Your task to perform on an android device: Go to ESPN.com Image 0: 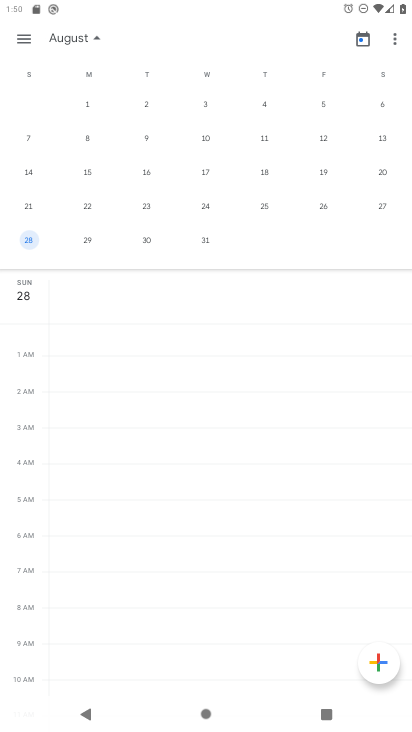
Step 0: click (355, 598)
Your task to perform on an android device: Go to ESPN.com Image 1: 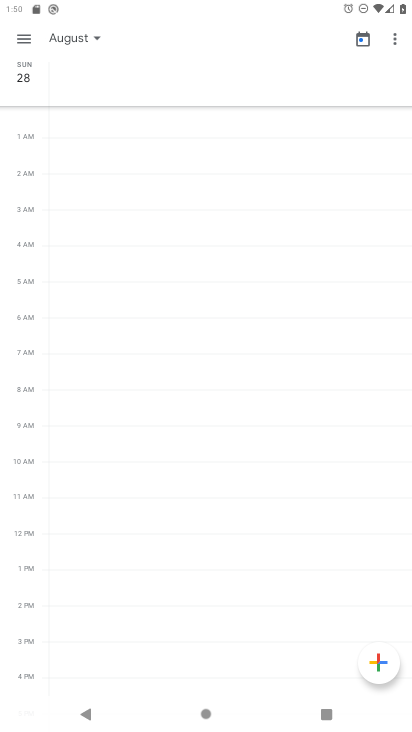
Step 1: press home button
Your task to perform on an android device: Go to ESPN.com Image 2: 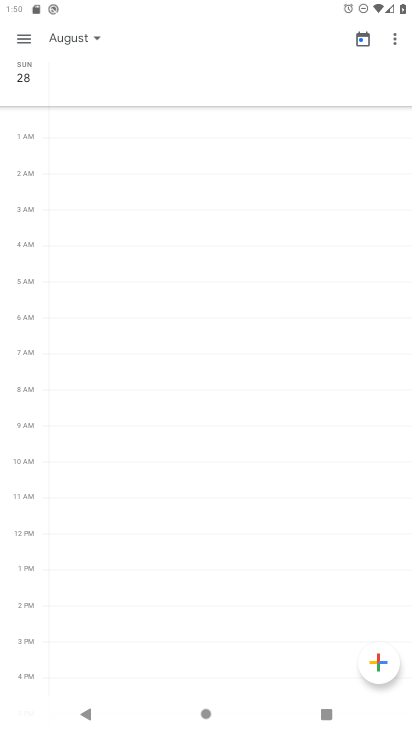
Step 2: drag from (322, 650) to (165, 7)
Your task to perform on an android device: Go to ESPN.com Image 3: 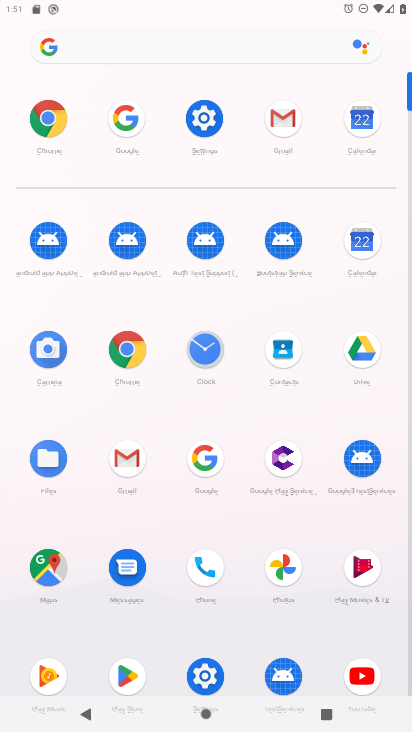
Step 3: click (196, 446)
Your task to perform on an android device: Go to ESPN.com Image 4: 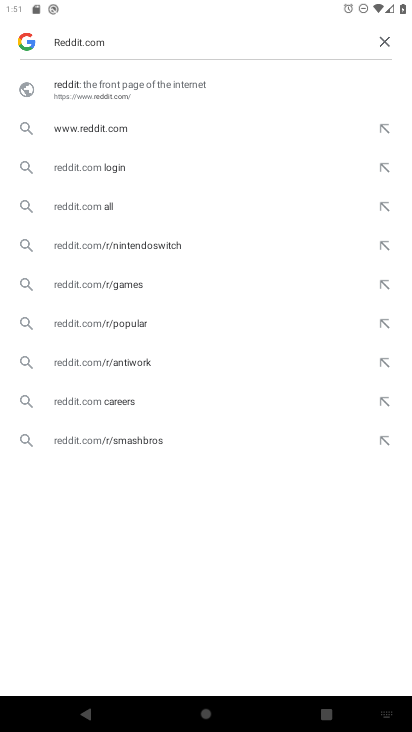
Step 4: click (385, 38)
Your task to perform on an android device: Go to ESPN.com Image 5: 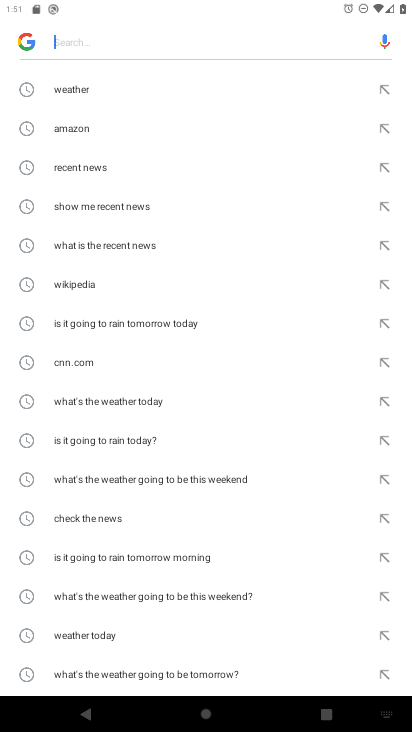
Step 5: type "ESPN.com"
Your task to perform on an android device: Go to ESPN.com Image 6: 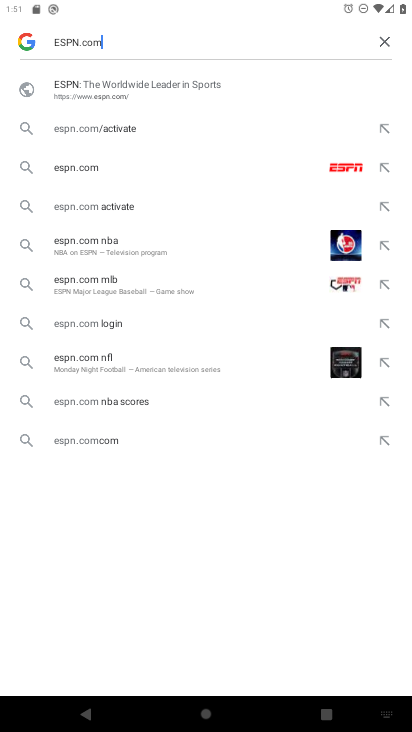
Step 6: click (82, 84)
Your task to perform on an android device: Go to ESPN.com Image 7: 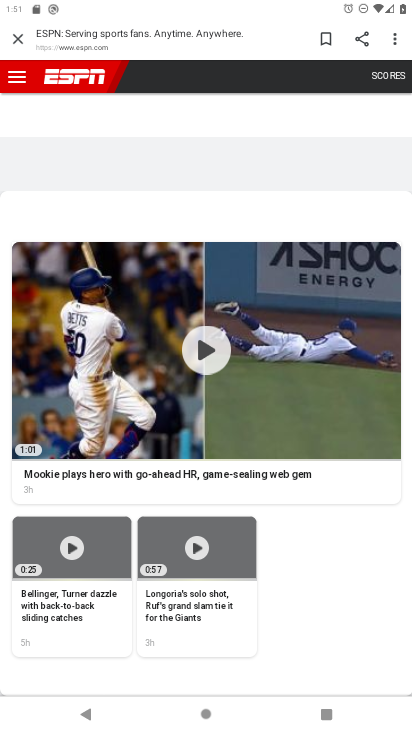
Step 7: task complete